Your task to perform on an android device: check battery use Image 0: 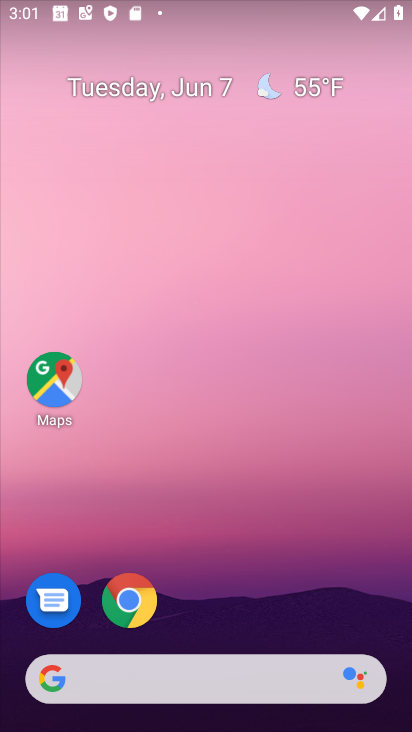
Step 0: drag from (209, 628) to (168, 7)
Your task to perform on an android device: check battery use Image 1: 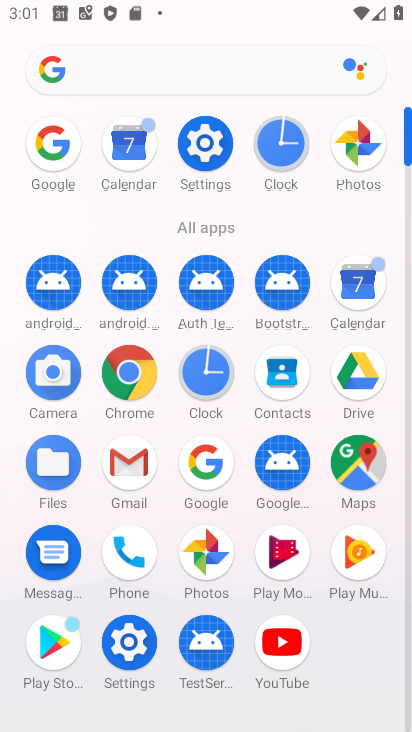
Step 1: click (203, 151)
Your task to perform on an android device: check battery use Image 2: 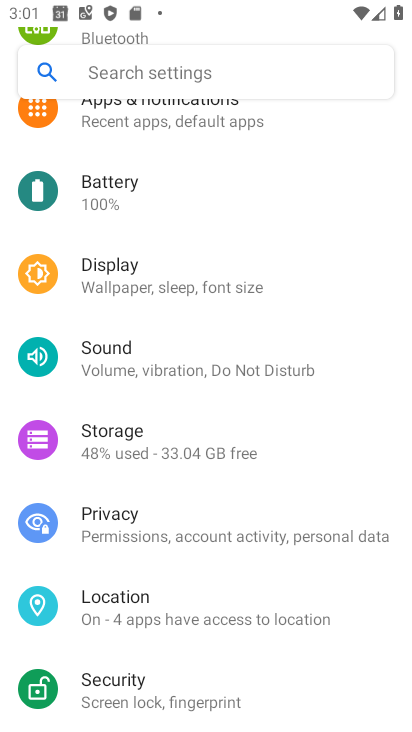
Step 2: click (92, 202)
Your task to perform on an android device: check battery use Image 3: 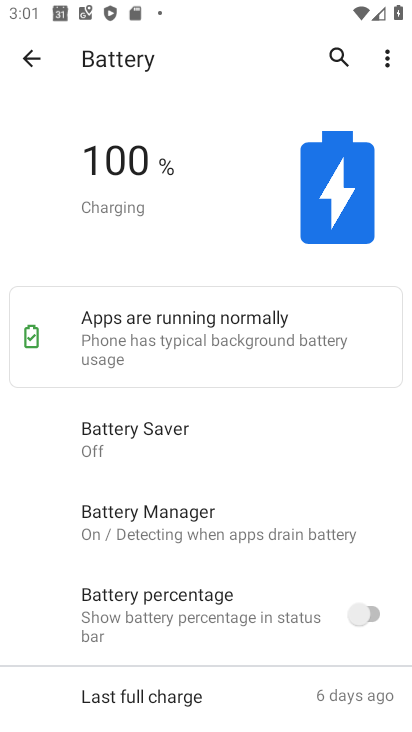
Step 3: task complete